Your task to perform on an android device: Go to battery settings Image 0: 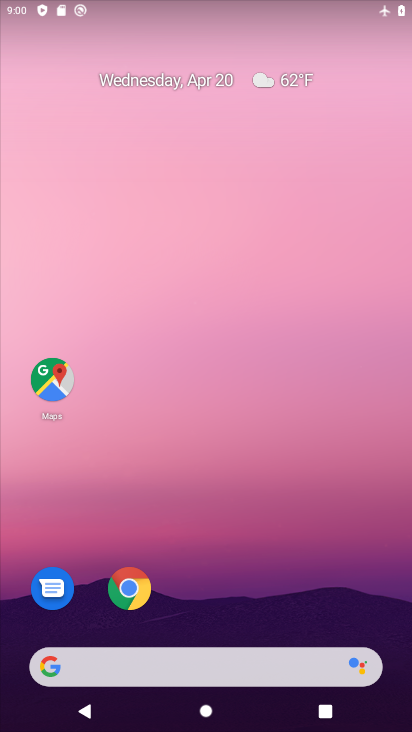
Step 0: drag from (302, 560) to (163, 32)
Your task to perform on an android device: Go to battery settings Image 1: 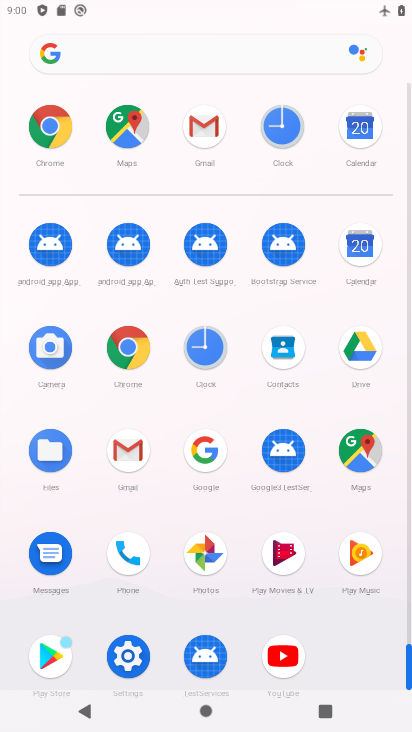
Step 1: drag from (6, 516) to (4, 298)
Your task to perform on an android device: Go to battery settings Image 2: 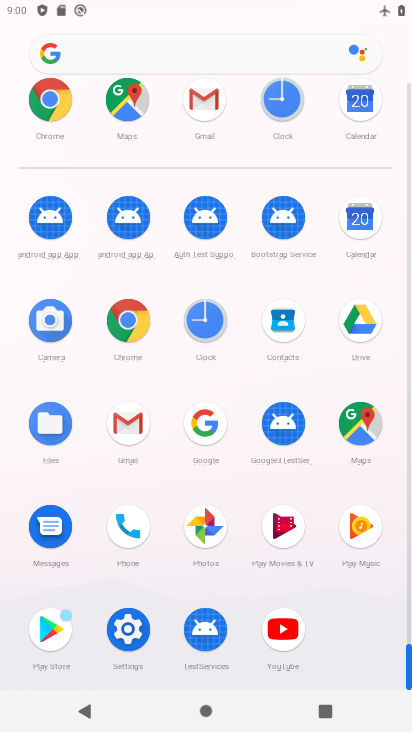
Step 2: click (127, 625)
Your task to perform on an android device: Go to battery settings Image 3: 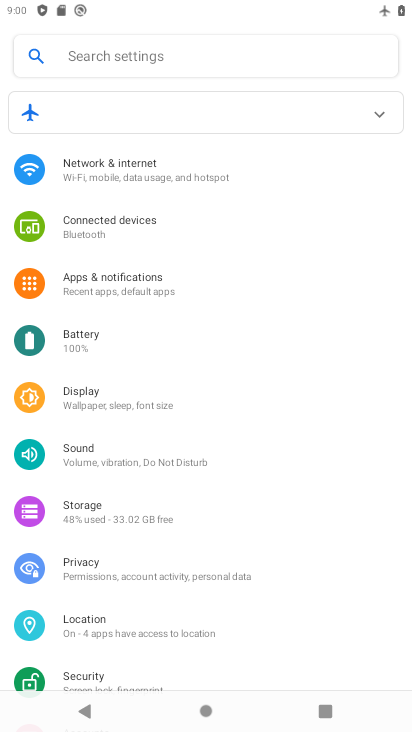
Step 3: click (103, 337)
Your task to perform on an android device: Go to battery settings Image 4: 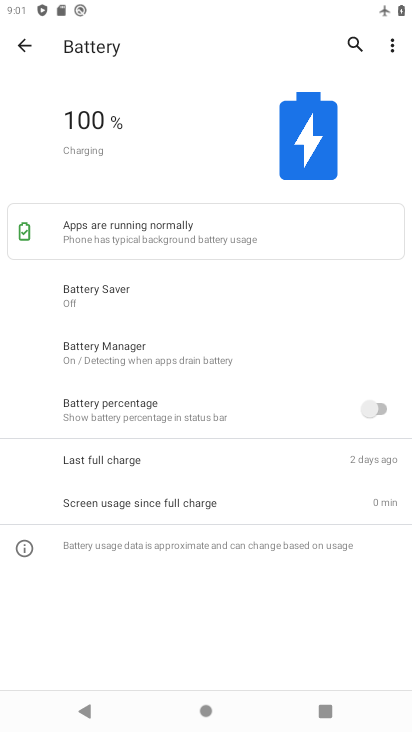
Step 4: task complete